Your task to perform on an android device: Search for the best rated desk chair on Article.com Image 0: 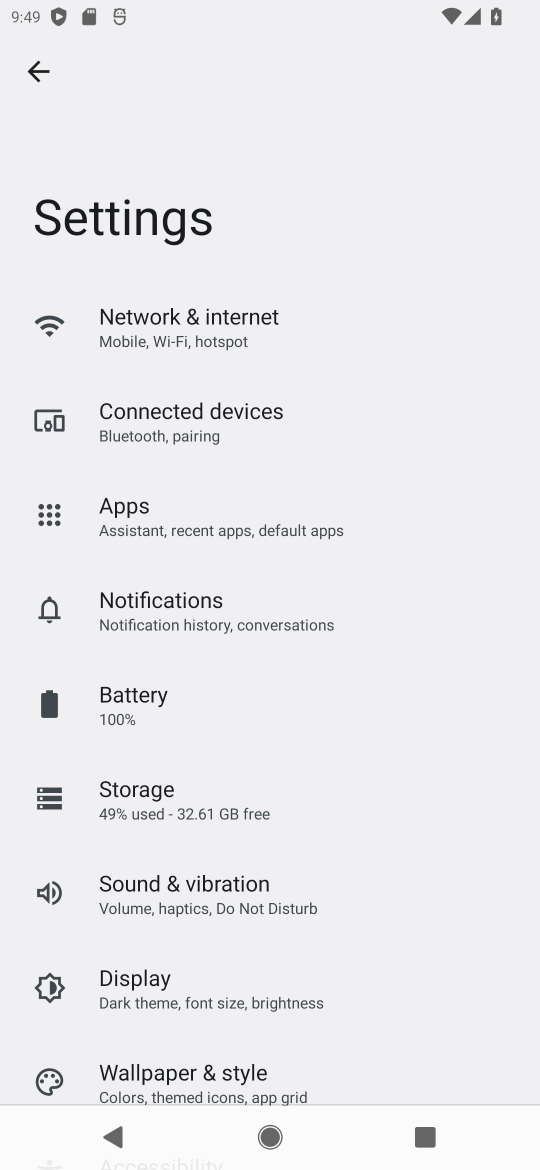
Step 0: click (284, 341)
Your task to perform on an android device: Search for the best rated desk chair on Article.com Image 1: 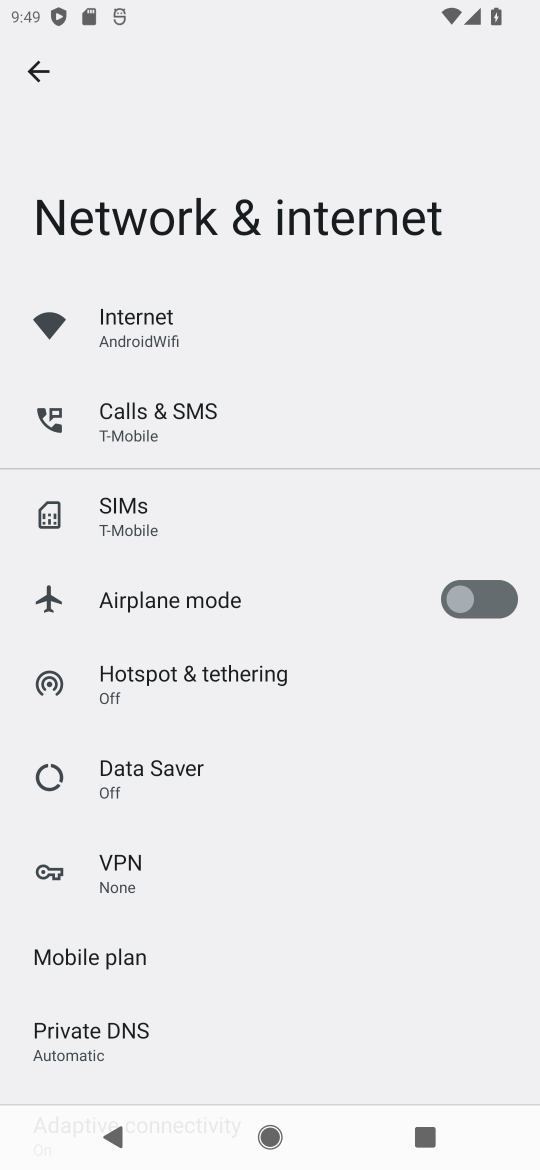
Step 1: click (155, 356)
Your task to perform on an android device: Search for the best rated desk chair on Article.com Image 2: 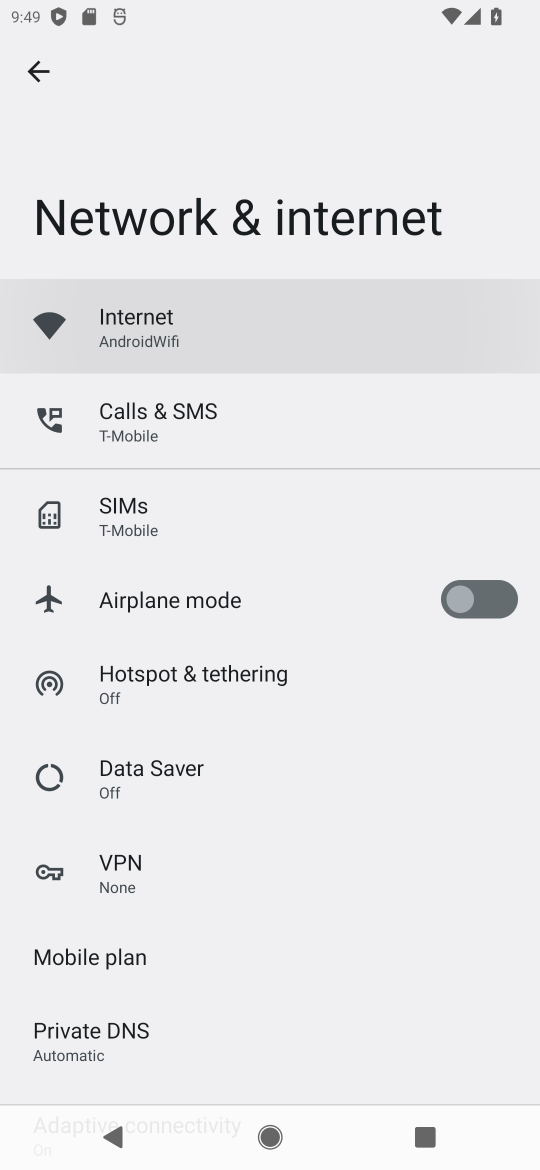
Step 2: task complete